Your task to perform on an android device: Show me the alarms in the clock app Image 0: 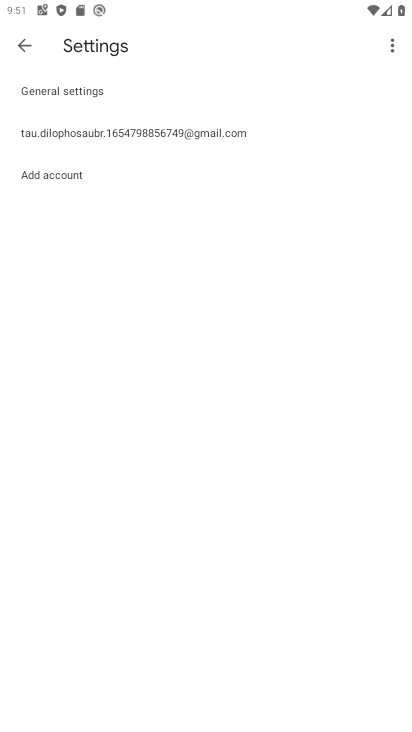
Step 0: press home button
Your task to perform on an android device: Show me the alarms in the clock app Image 1: 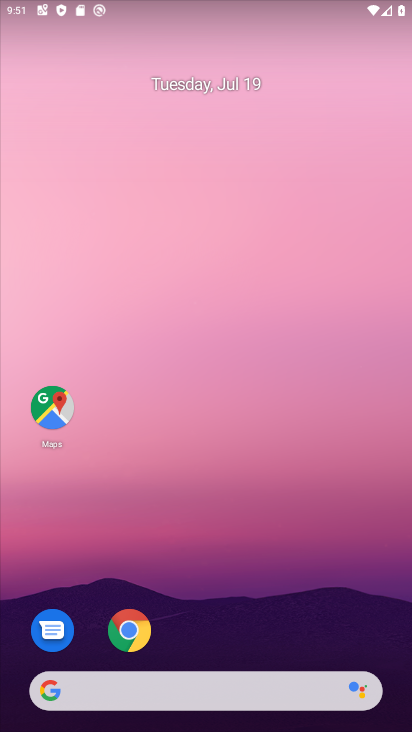
Step 1: drag from (225, 655) to (288, 220)
Your task to perform on an android device: Show me the alarms in the clock app Image 2: 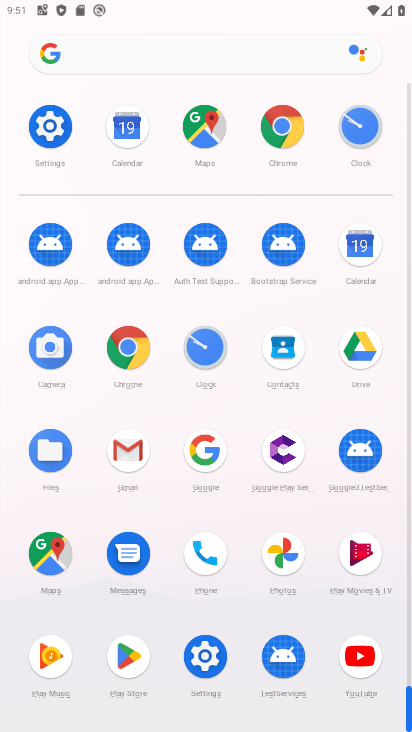
Step 2: click (206, 375)
Your task to perform on an android device: Show me the alarms in the clock app Image 3: 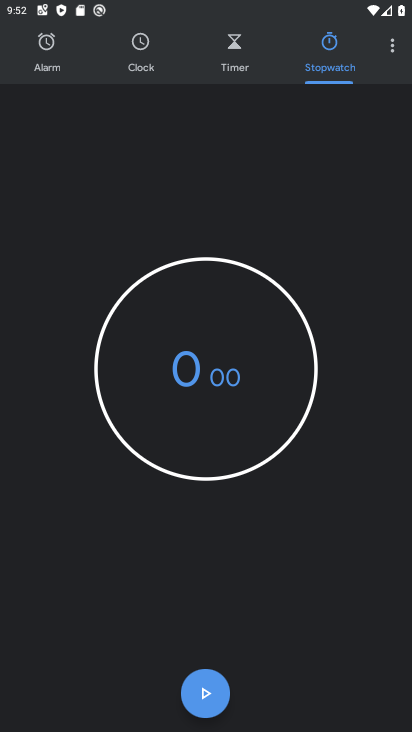
Step 3: click (59, 66)
Your task to perform on an android device: Show me the alarms in the clock app Image 4: 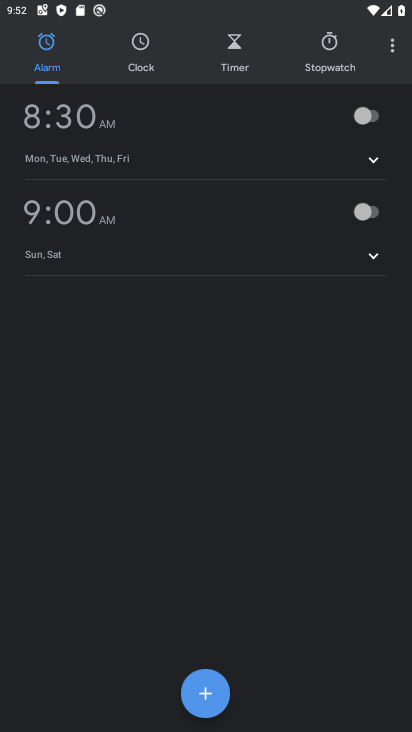
Step 4: task complete